Your task to perform on an android device: Open internet settings Image 0: 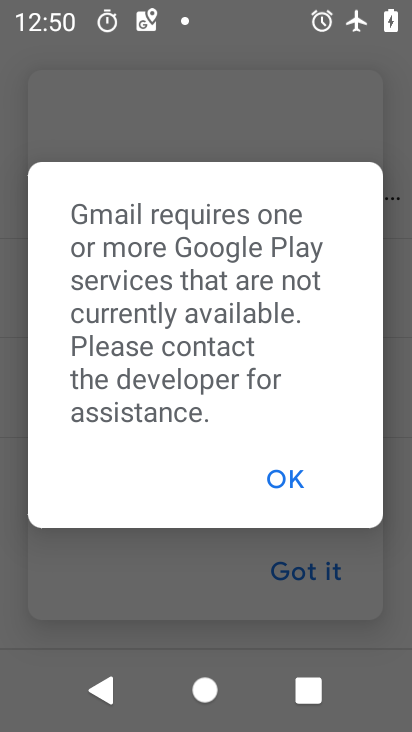
Step 0: press home button
Your task to perform on an android device: Open internet settings Image 1: 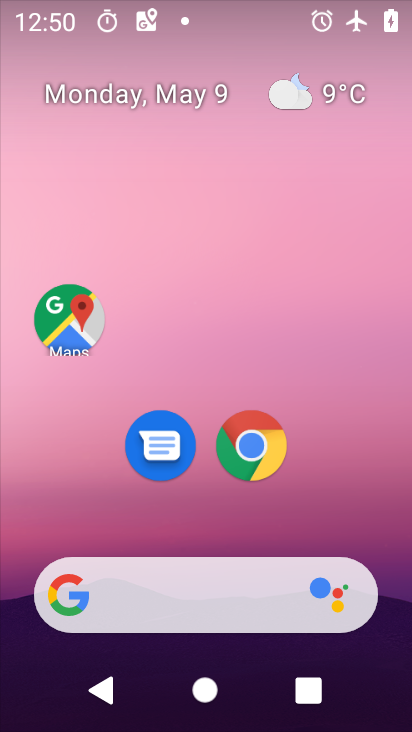
Step 1: drag from (360, 538) to (279, 1)
Your task to perform on an android device: Open internet settings Image 2: 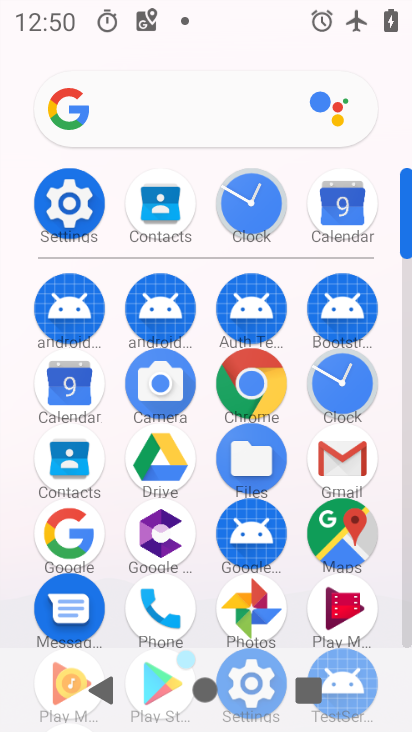
Step 2: click (51, 195)
Your task to perform on an android device: Open internet settings Image 3: 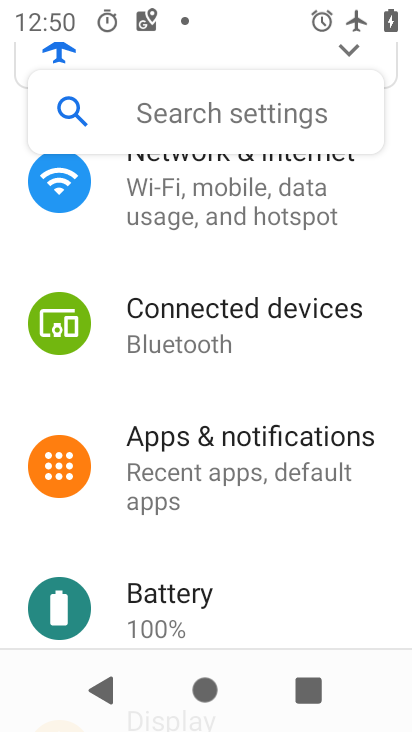
Step 3: click (221, 190)
Your task to perform on an android device: Open internet settings Image 4: 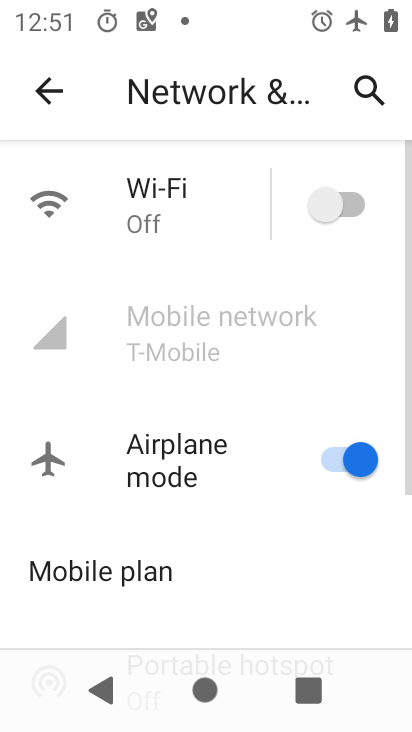
Step 4: drag from (167, 317) to (168, 186)
Your task to perform on an android device: Open internet settings Image 5: 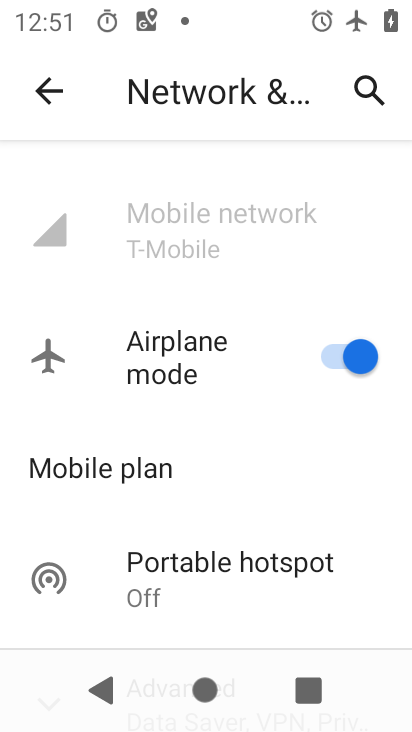
Step 5: drag from (113, 518) to (115, 314)
Your task to perform on an android device: Open internet settings Image 6: 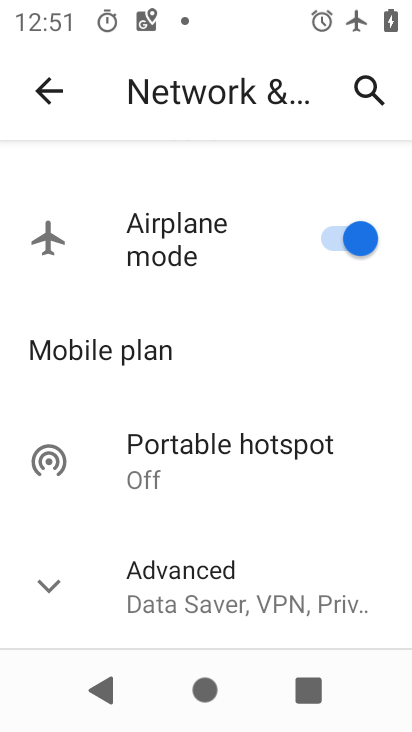
Step 6: drag from (237, 515) to (261, 204)
Your task to perform on an android device: Open internet settings Image 7: 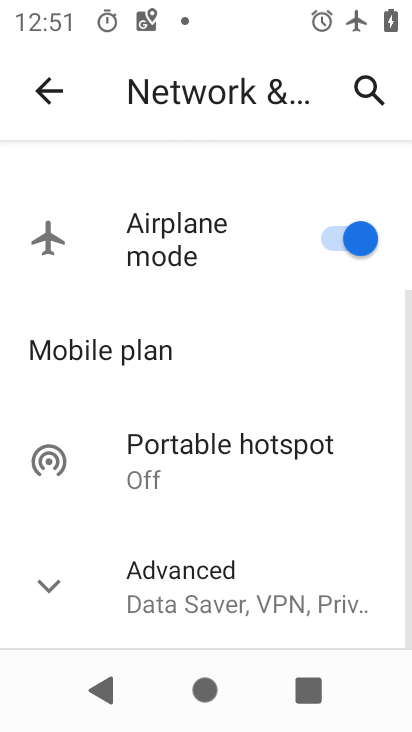
Step 7: click (35, 608)
Your task to perform on an android device: Open internet settings Image 8: 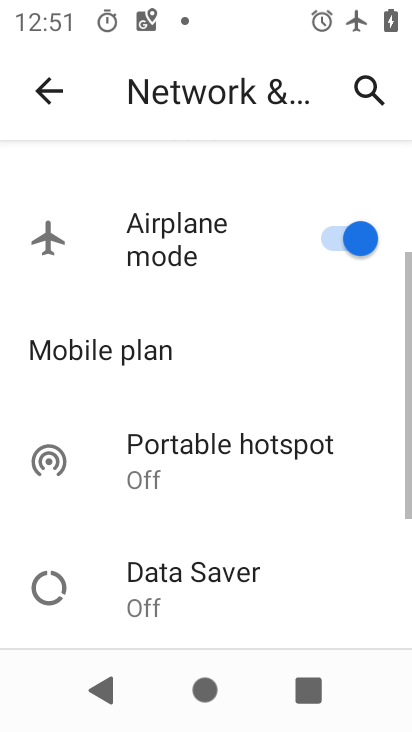
Step 8: task complete